Your task to perform on an android device: Show me popular games on the Play Store Image 0: 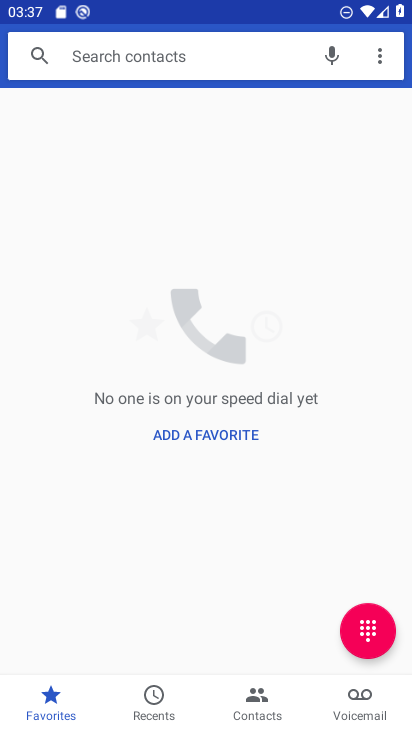
Step 0: press home button
Your task to perform on an android device: Show me popular games on the Play Store Image 1: 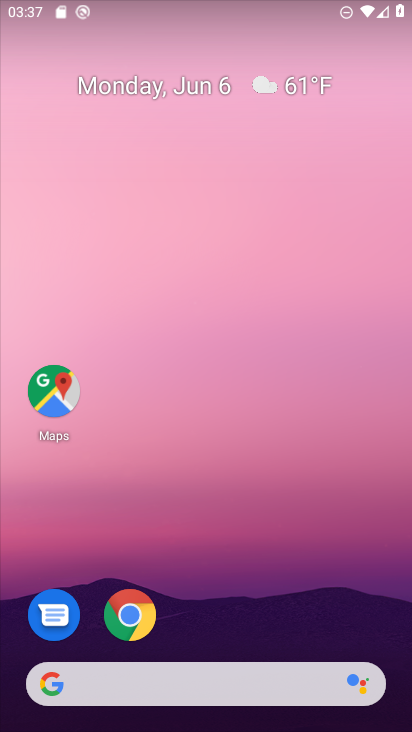
Step 1: drag from (380, 633) to (343, 63)
Your task to perform on an android device: Show me popular games on the Play Store Image 2: 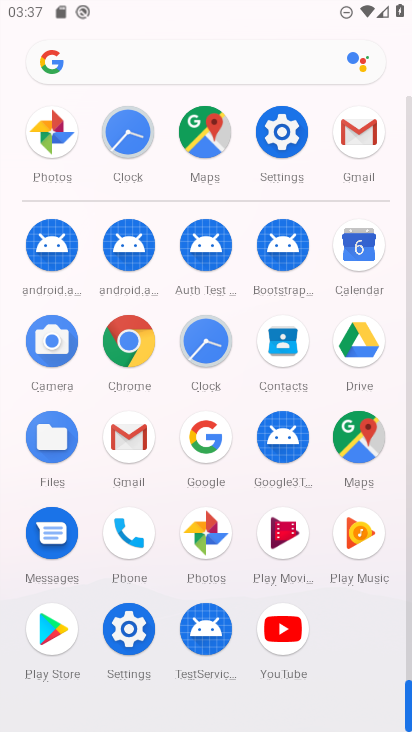
Step 2: click (58, 624)
Your task to perform on an android device: Show me popular games on the Play Store Image 3: 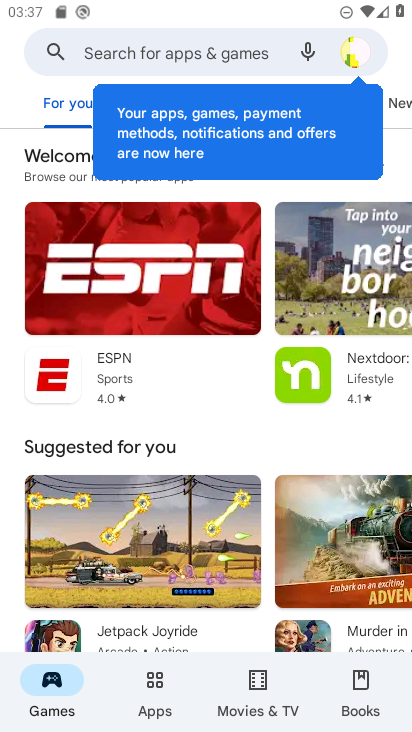
Step 3: drag from (264, 456) to (229, 53)
Your task to perform on an android device: Show me popular games on the Play Store Image 4: 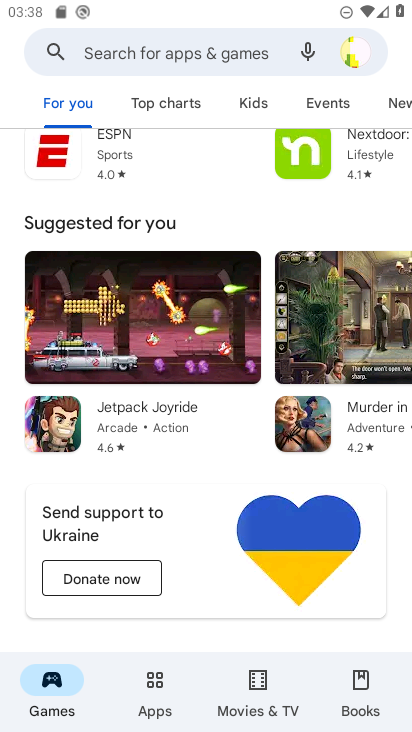
Step 4: click (206, 130)
Your task to perform on an android device: Show me popular games on the Play Store Image 5: 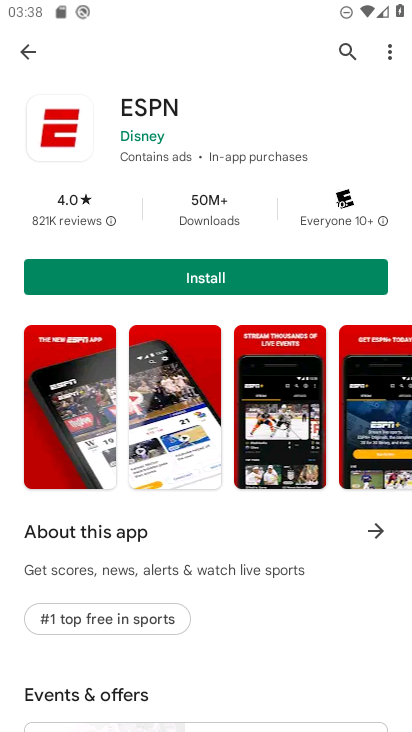
Step 5: press back button
Your task to perform on an android device: Show me popular games on the Play Store Image 6: 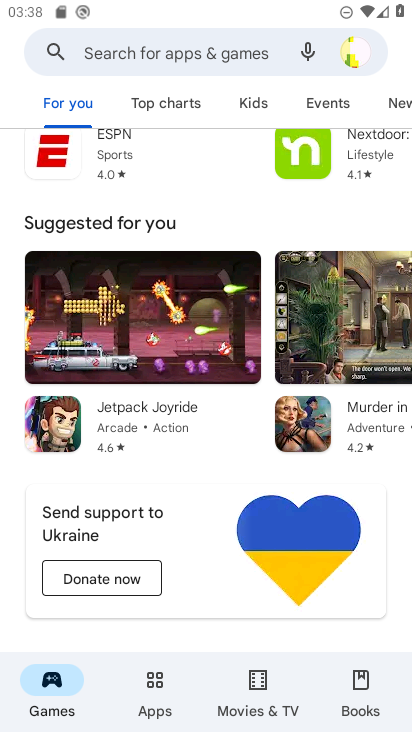
Step 6: drag from (230, 616) to (209, 117)
Your task to perform on an android device: Show me popular games on the Play Store Image 7: 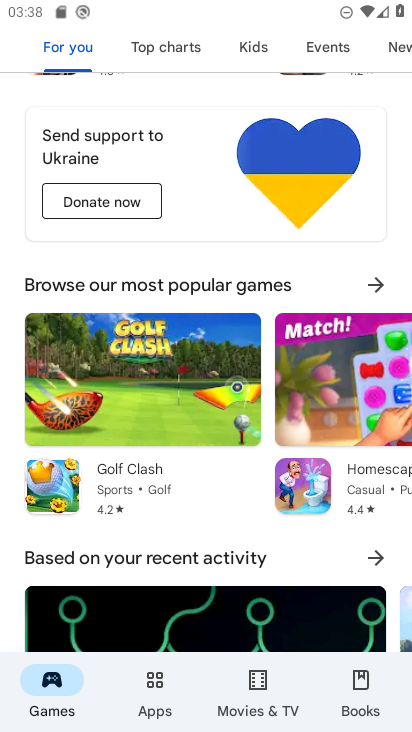
Step 7: click (371, 283)
Your task to perform on an android device: Show me popular games on the Play Store Image 8: 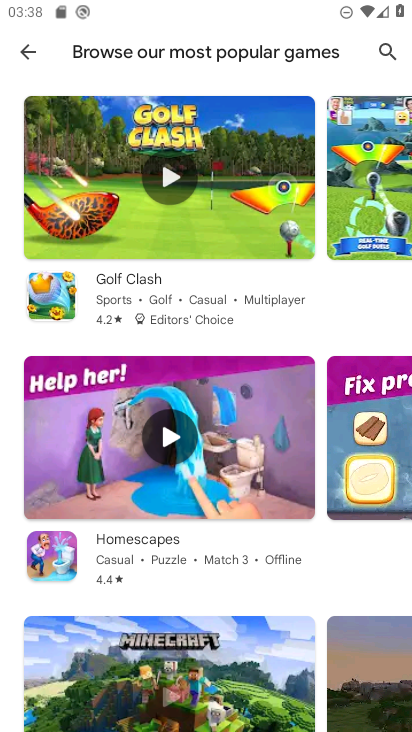
Step 8: task complete